Your task to perform on an android device: turn off priority inbox in the gmail app Image 0: 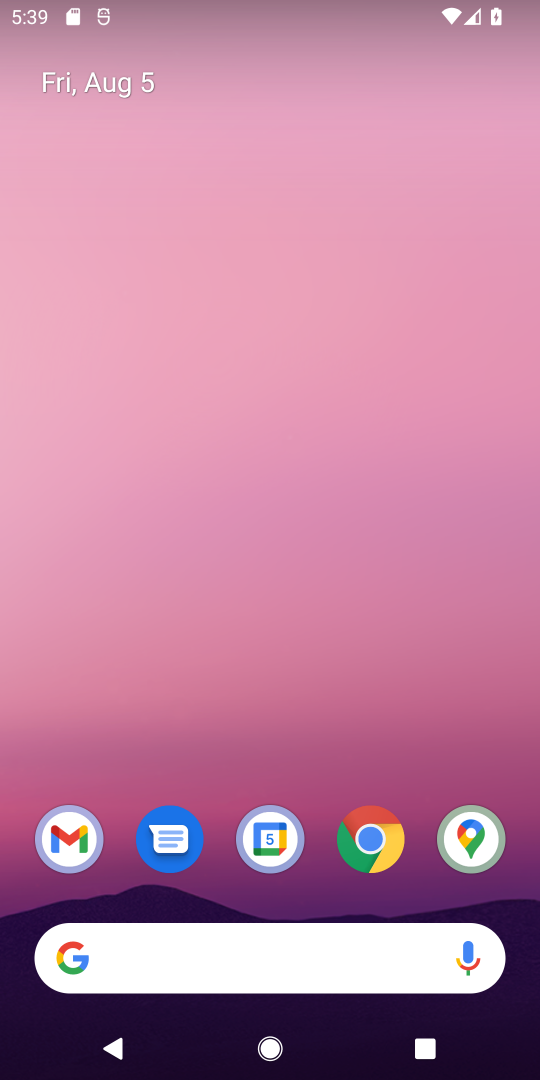
Step 0: click (88, 817)
Your task to perform on an android device: turn off priority inbox in the gmail app Image 1: 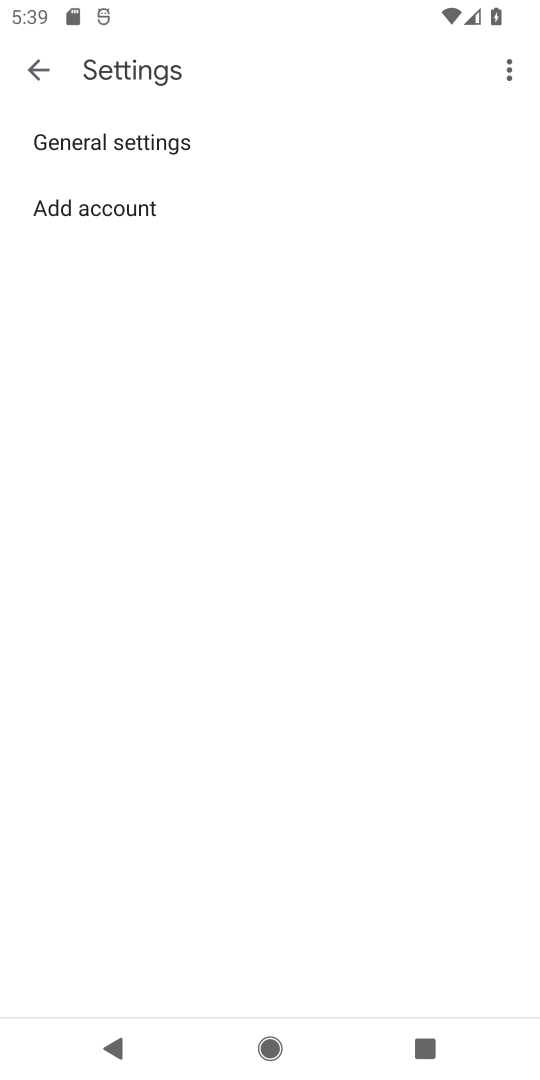
Step 1: click (46, 72)
Your task to perform on an android device: turn off priority inbox in the gmail app Image 2: 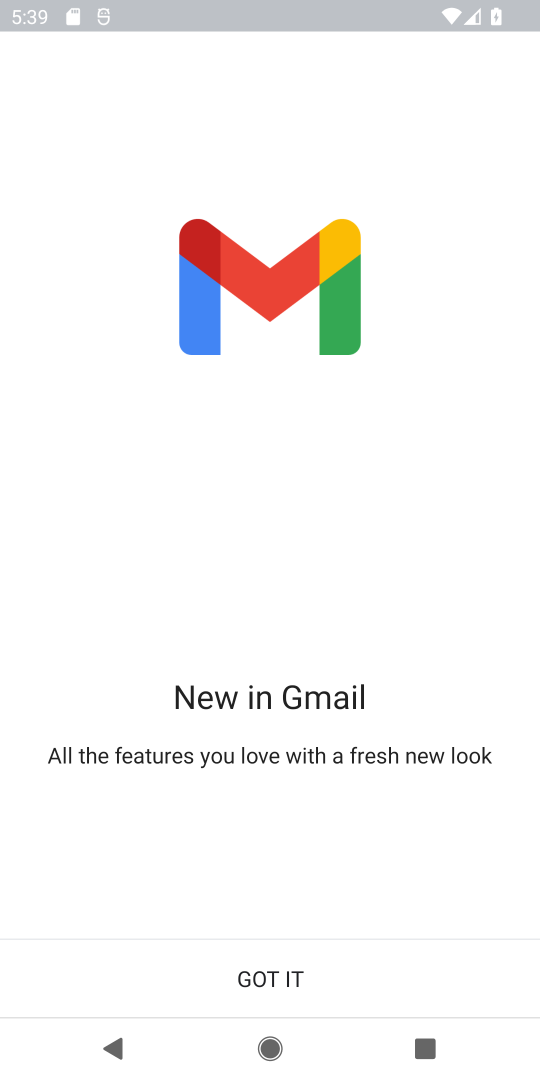
Step 2: click (251, 972)
Your task to perform on an android device: turn off priority inbox in the gmail app Image 3: 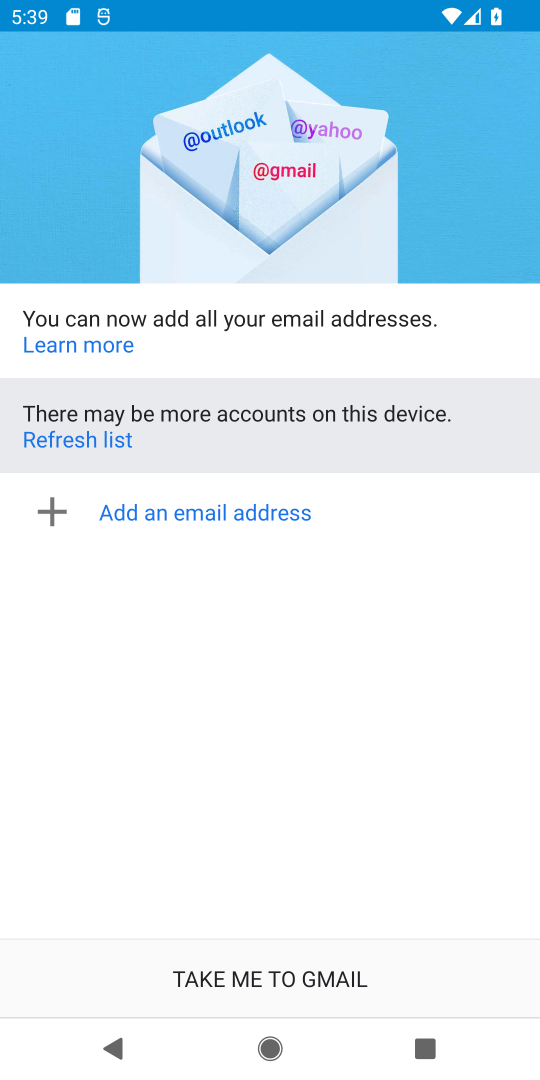
Step 3: task complete